Your task to perform on an android device: Go to Reddit.com Image 0: 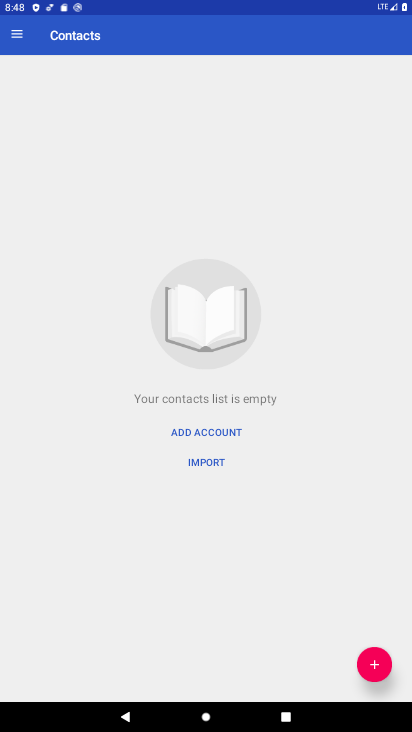
Step 0: press home button
Your task to perform on an android device: Go to Reddit.com Image 1: 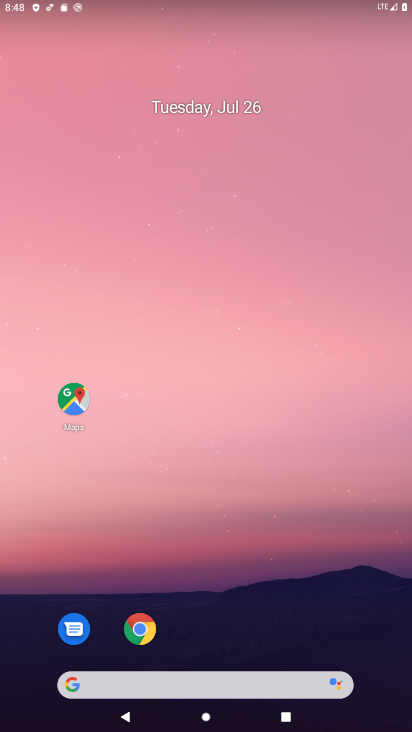
Step 1: click (245, 676)
Your task to perform on an android device: Go to Reddit.com Image 2: 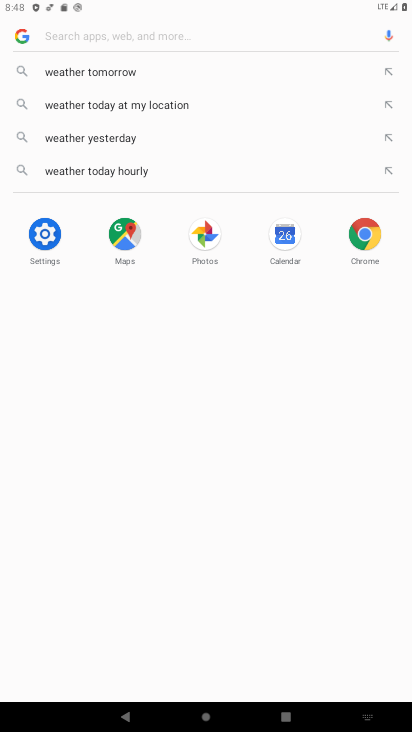
Step 2: type "Reddit.com"
Your task to perform on an android device: Go to Reddit.com Image 3: 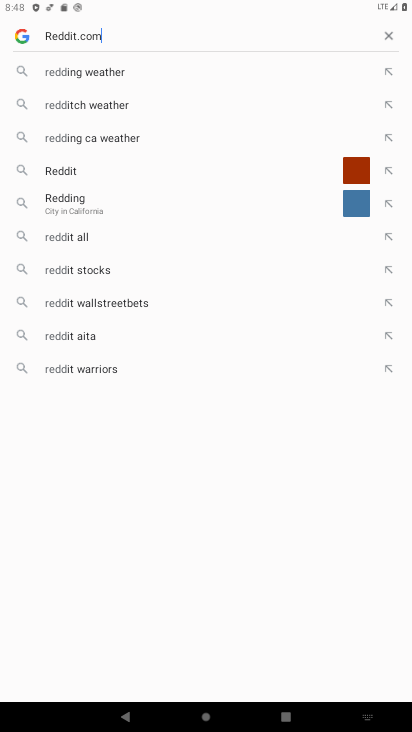
Step 3: type ""
Your task to perform on an android device: Go to Reddit.com Image 4: 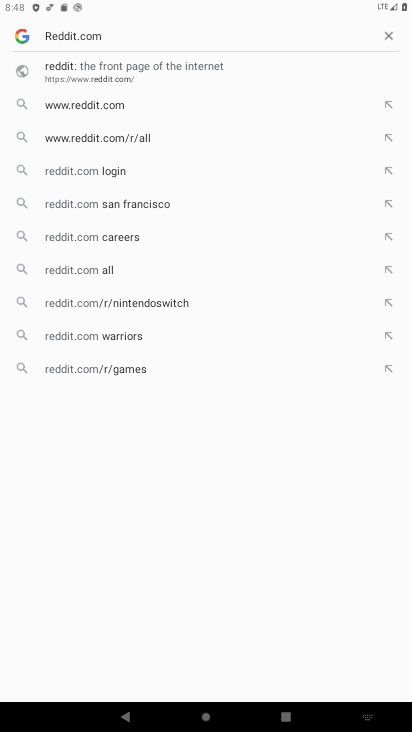
Step 4: click (88, 79)
Your task to perform on an android device: Go to Reddit.com Image 5: 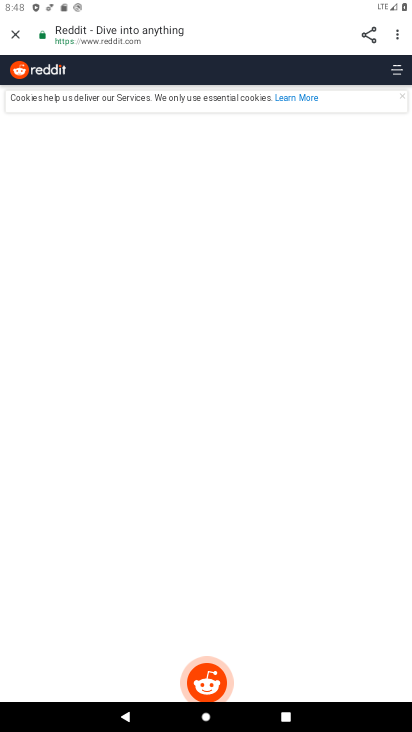
Step 5: task complete